Your task to perform on an android device: find photos in the google photos app Image 0: 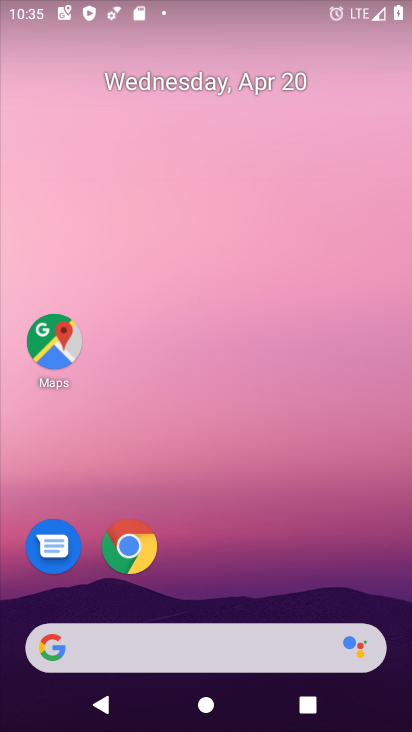
Step 0: drag from (187, 539) to (59, 94)
Your task to perform on an android device: find photos in the google photos app Image 1: 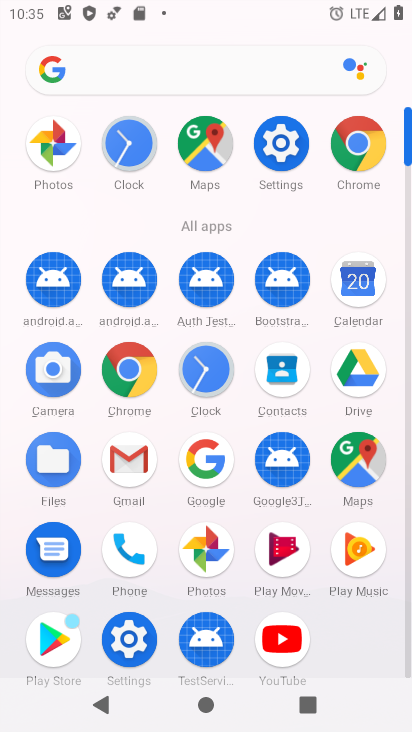
Step 1: click (191, 548)
Your task to perform on an android device: find photos in the google photos app Image 2: 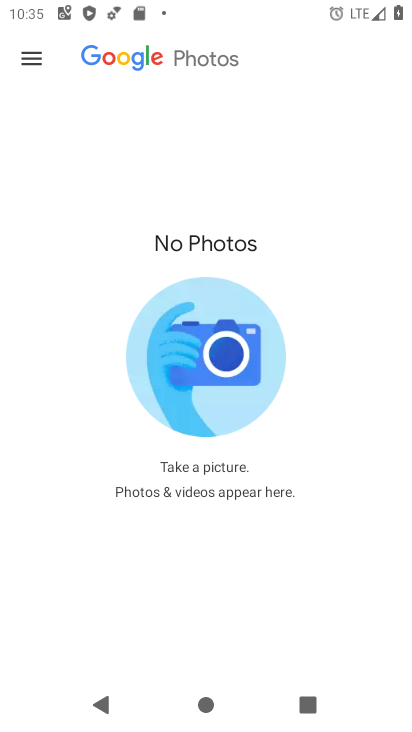
Step 2: task complete